Your task to perform on an android device: Open Maps and search for coffee Image 0: 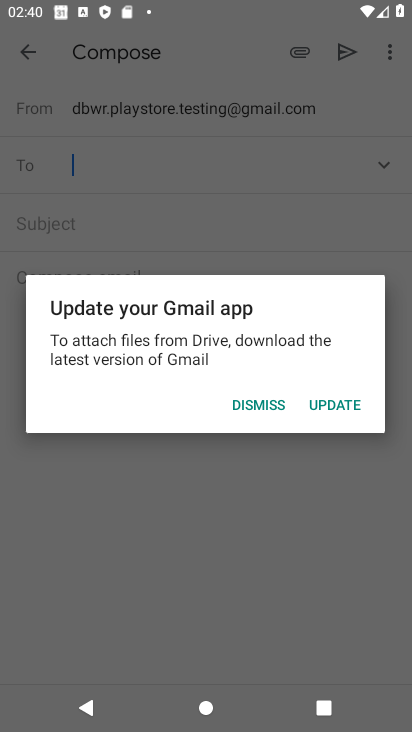
Step 0: press back button
Your task to perform on an android device: Open Maps and search for coffee Image 1: 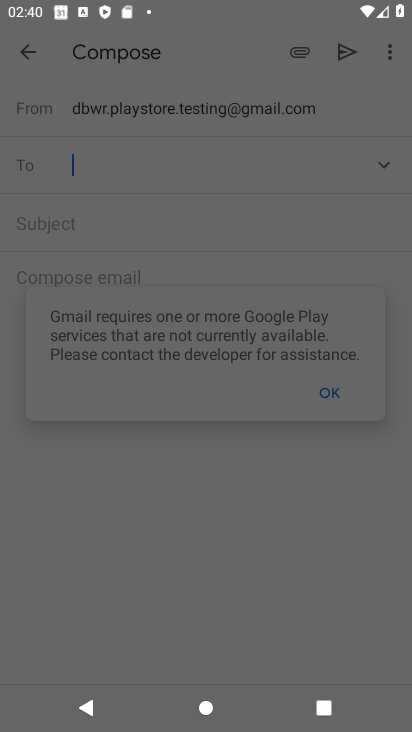
Step 1: press back button
Your task to perform on an android device: Open Maps and search for coffee Image 2: 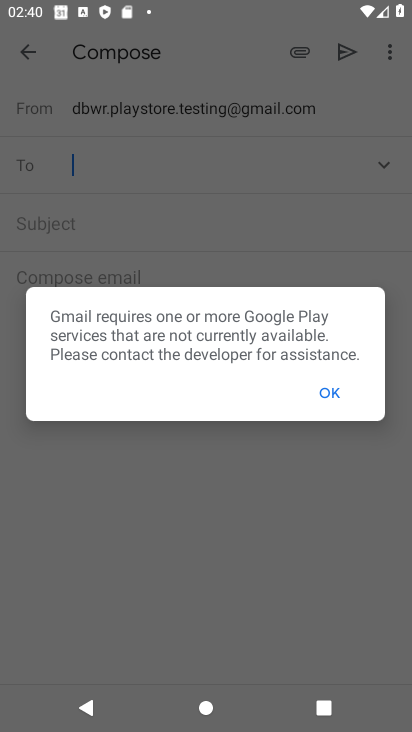
Step 2: click (333, 392)
Your task to perform on an android device: Open Maps and search for coffee Image 3: 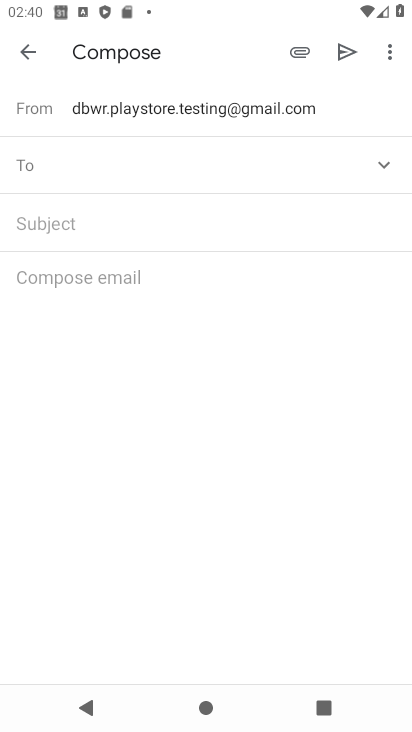
Step 3: press back button
Your task to perform on an android device: Open Maps and search for coffee Image 4: 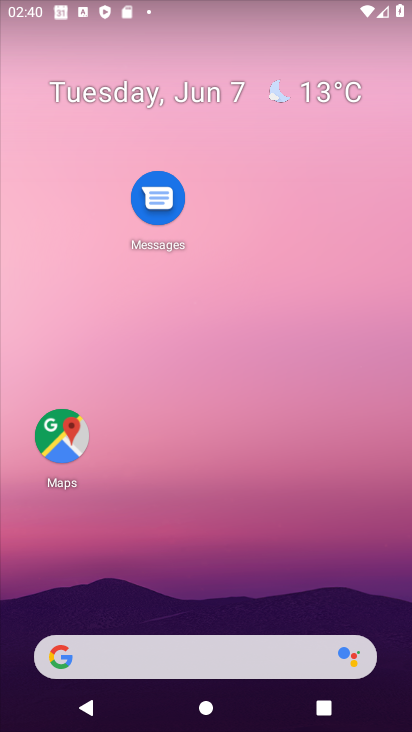
Step 4: drag from (188, 585) to (193, 34)
Your task to perform on an android device: Open Maps and search for coffee Image 5: 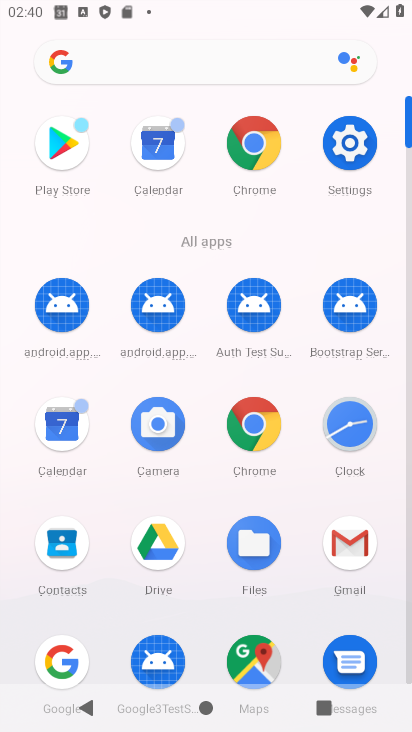
Step 5: click (248, 673)
Your task to perform on an android device: Open Maps and search for coffee Image 6: 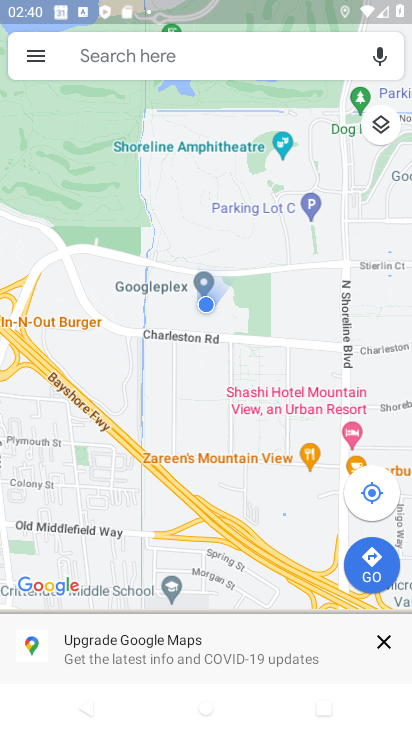
Step 6: click (160, 64)
Your task to perform on an android device: Open Maps and search for coffee Image 7: 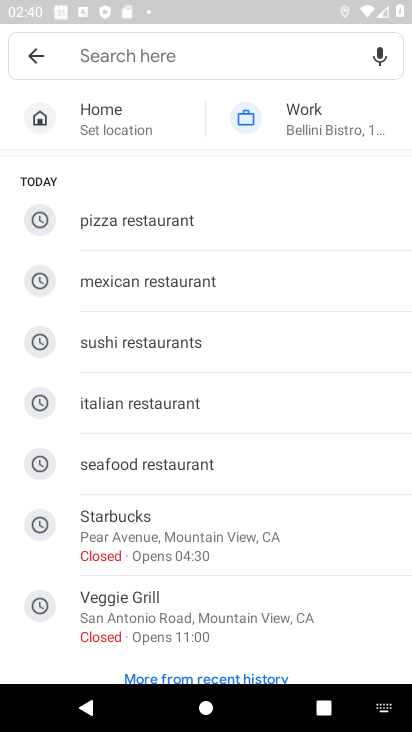
Step 7: type "coffee"
Your task to perform on an android device: Open Maps and search for coffee Image 8: 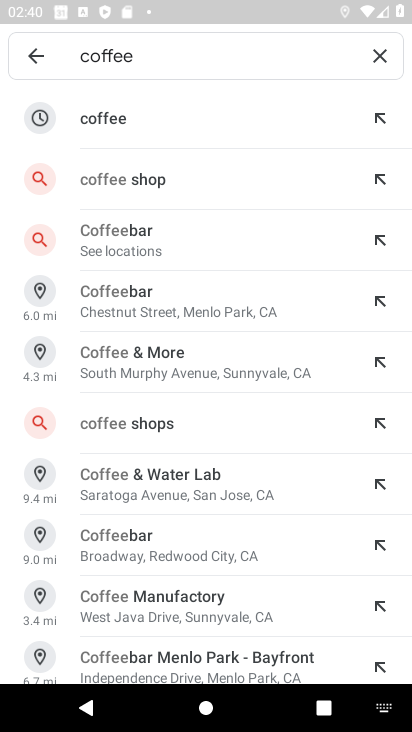
Step 8: click (95, 123)
Your task to perform on an android device: Open Maps and search for coffee Image 9: 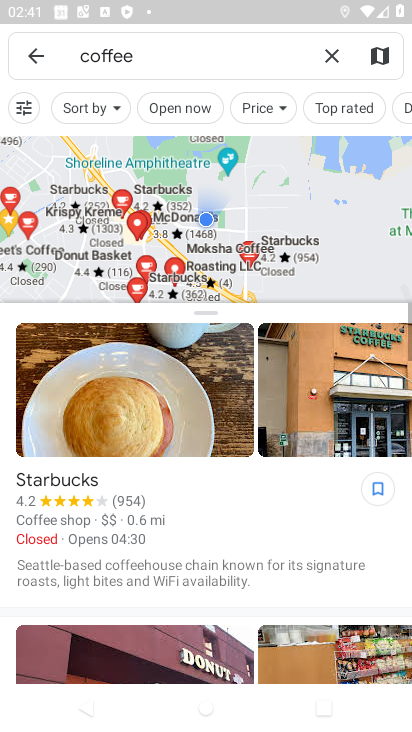
Step 9: task complete